Your task to perform on an android device: remove spam from my inbox in the gmail app Image 0: 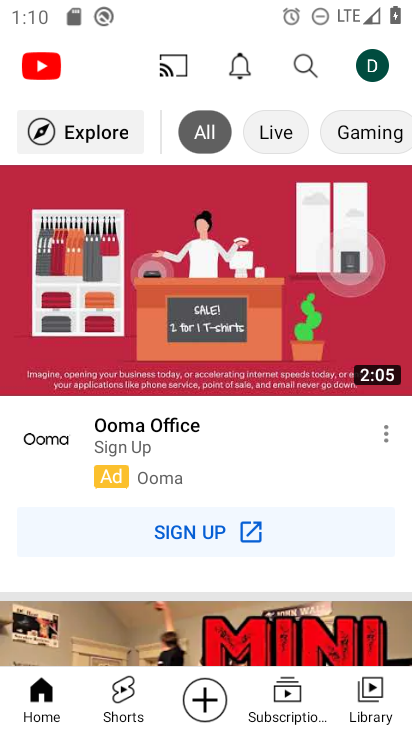
Step 0: press home button
Your task to perform on an android device: remove spam from my inbox in the gmail app Image 1: 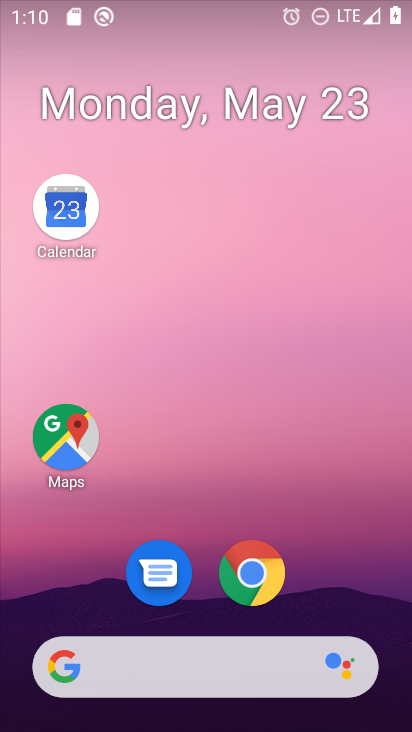
Step 1: drag from (314, 611) to (359, 32)
Your task to perform on an android device: remove spam from my inbox in the gmail app Image 2: 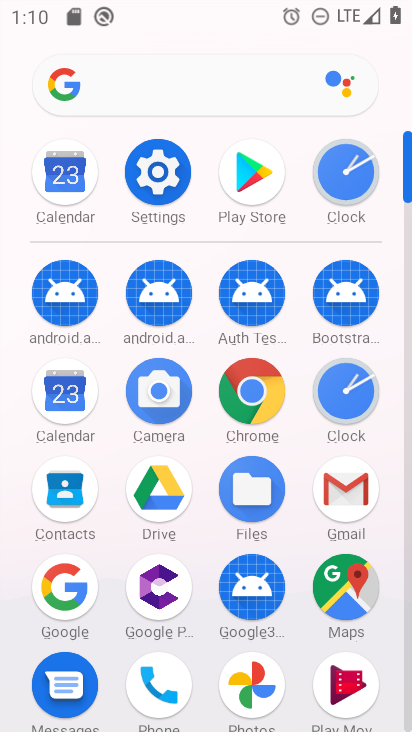
Step 2: click (341, 496)
Your task to perform on an android device: remove spam from my inbox in the gmail app Image 3: 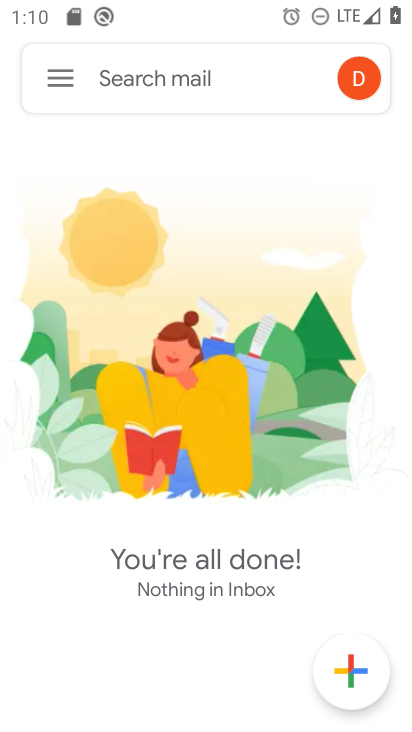
Step 3: click (75, 79)
Your task to perform on an android device: remove spam from my inbox in the gmail app Image 4: 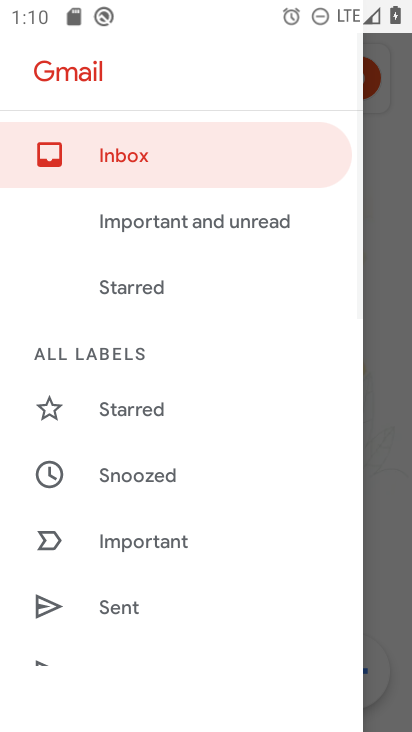
Step 4: drag from (157, 594) to (185, 288)
Your task to perform on an android device: remove spam from my inbox in the gmail app Image 5: 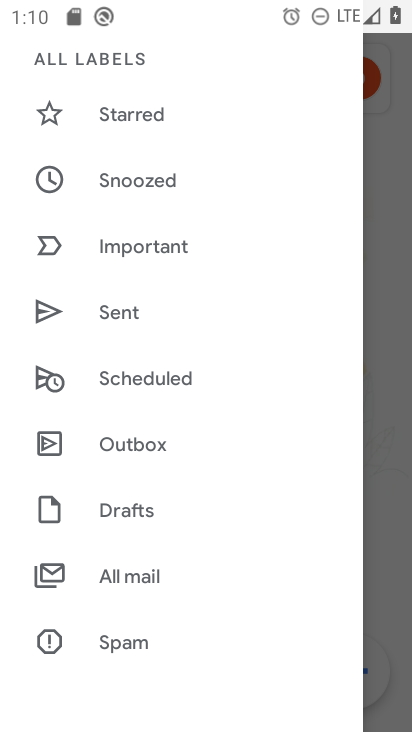
Step 5: click (131, 638)
Your task to perform on an android device: remove spam from my inbox in the gmail app Image 6: 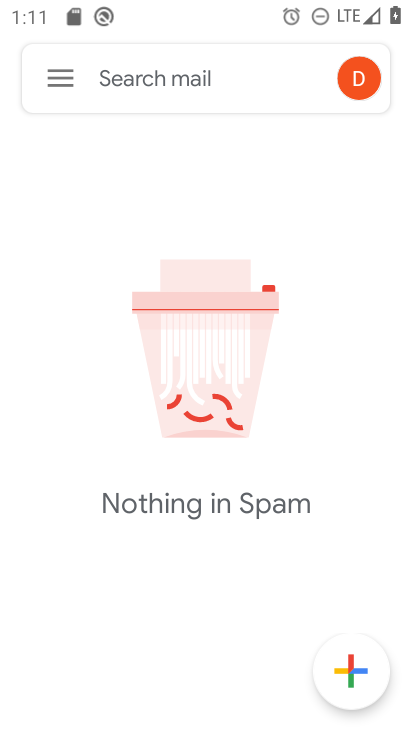
Step 6: task complete